Your task to perform on an android device: change the clock style Image 0: 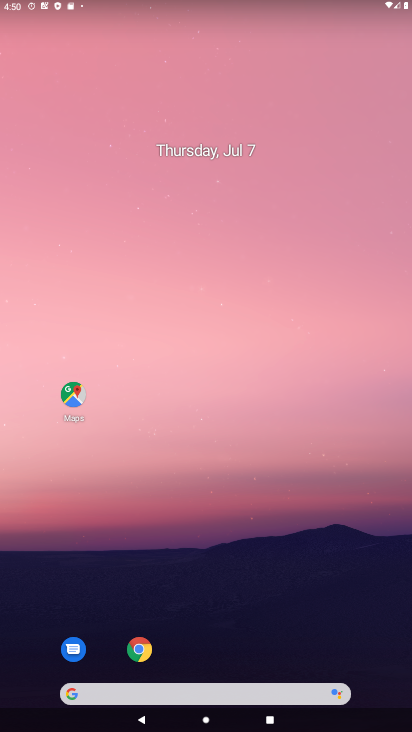
Step 0: drag from (366, 670) to (282, 156)
Your task to perform on an android device: change the clock style Image 1: 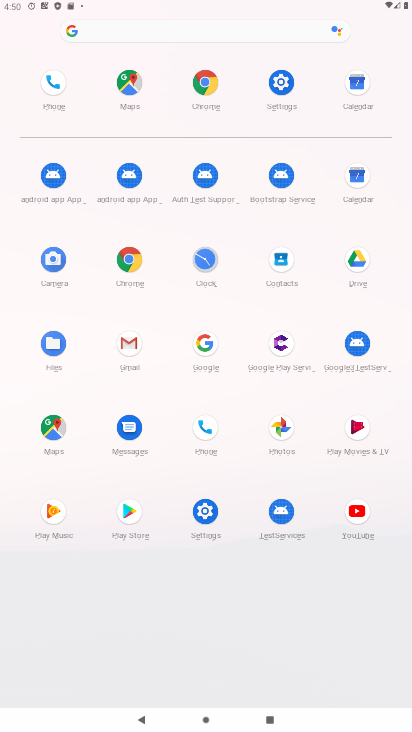
Step 1: click (206, 259)
Your task to perform on an android device: change the clock style Image 2: 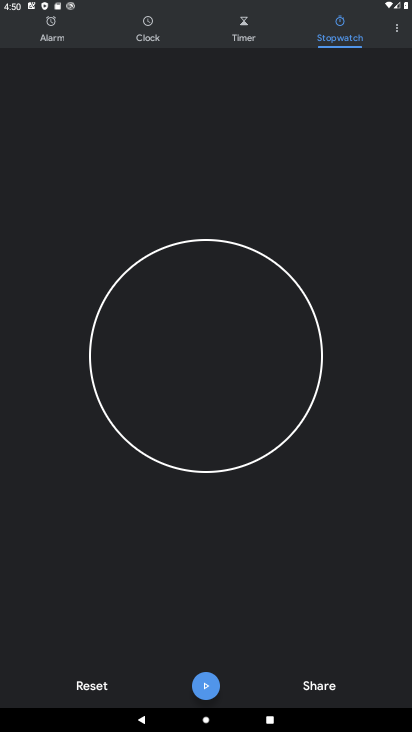
Step 2: click (398, 25)
Your task to perform on an android device: change the clock style Image 3: 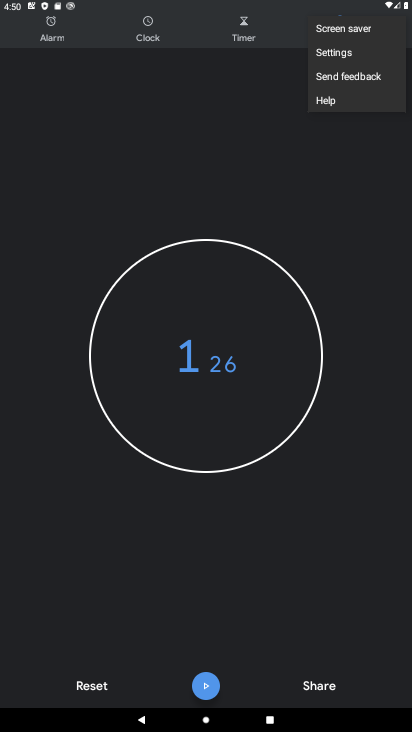
Step 3: click (345, 56)
Your task to perform on an android device: change the clock style Image 4: 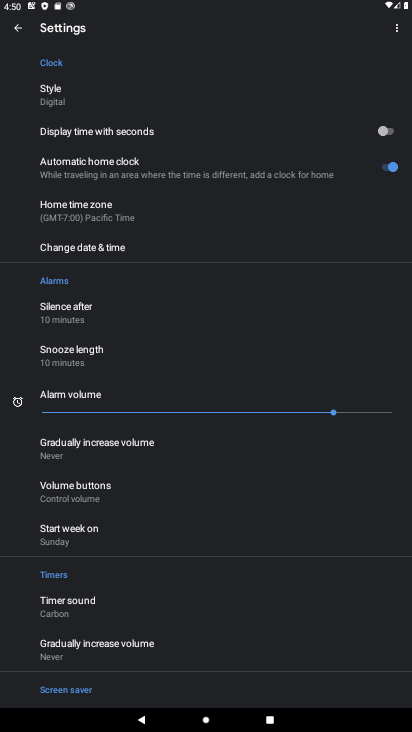
Step 4: click (74, 98)
Your task to perform on an android device: change the clock style Image 5: 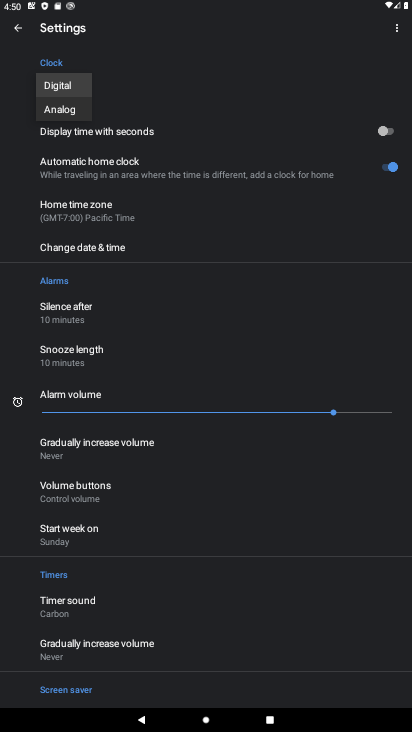
Step 5: click (61, 111)
Your task to perform on an android device: change the clock style Image 6: 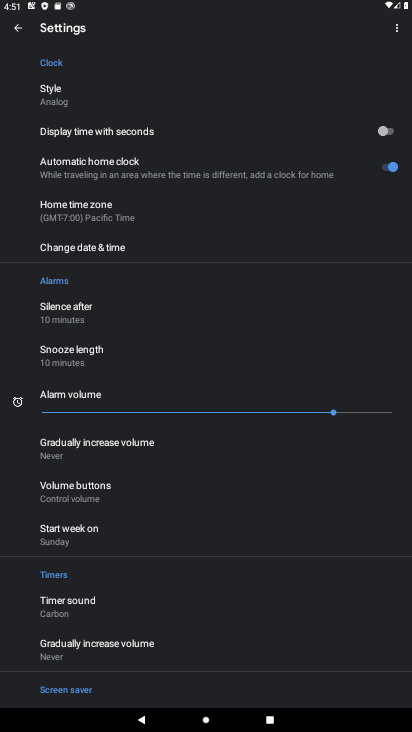
Step 6: task complete